Your task to perform on an android device: check the backup settings in the google photos Image 0: 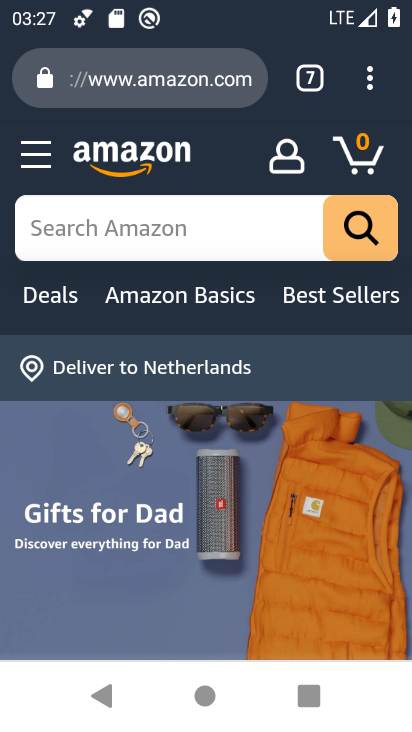
Step 0: press home button
Your task to perform on an android device: check the backup settings in the google photos Image 1: 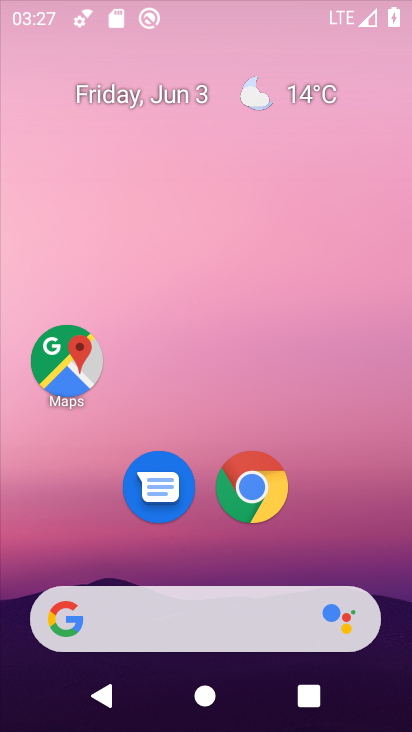
Step 1: drag from (334, 511) to (222, 0)
Your task to perform on an android device: check the backup settings in the google photos Image 2: 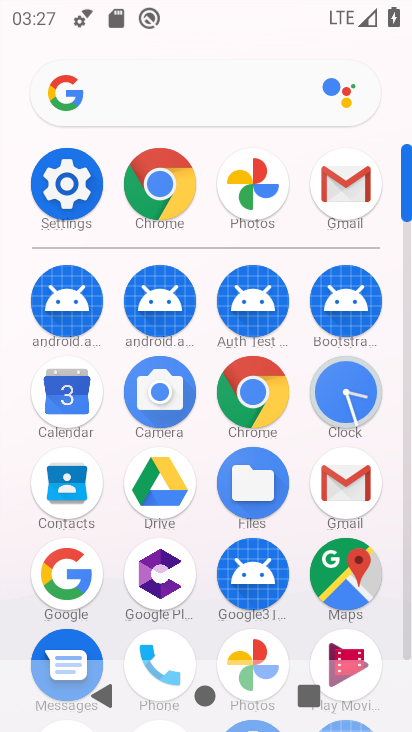
Step 2: click (259, 650)
Your task to perform on an android device: check the backup settings in the google photos Image 3: 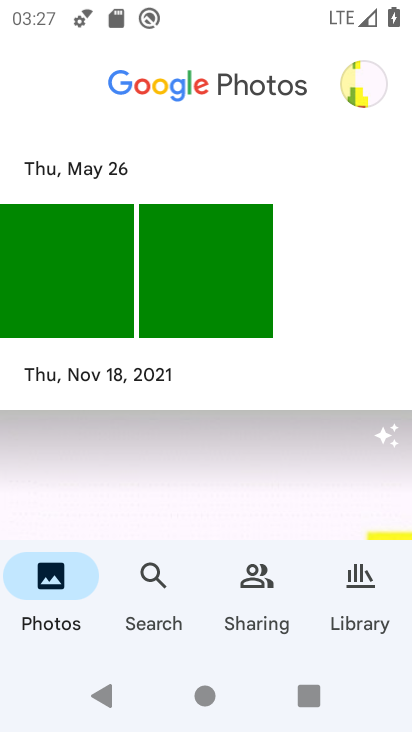
Step 3: click (350, 79)
Your task to perform on an android device: check the backup settings in the google photos Image 4: 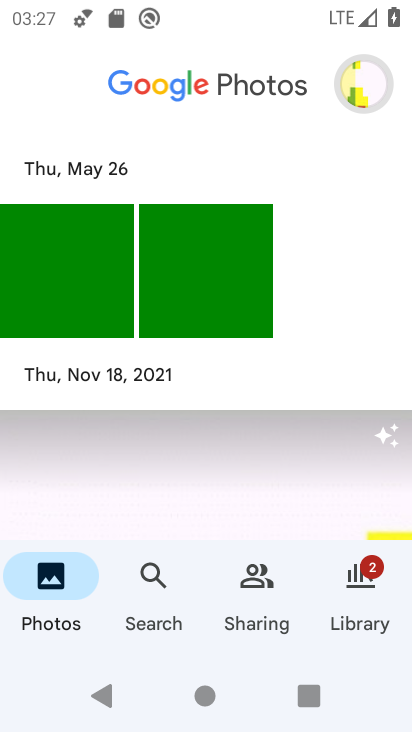
Step 4: click (372, 78)
Your task to perform on an android device: check the backup settings in the google photos Image 5: 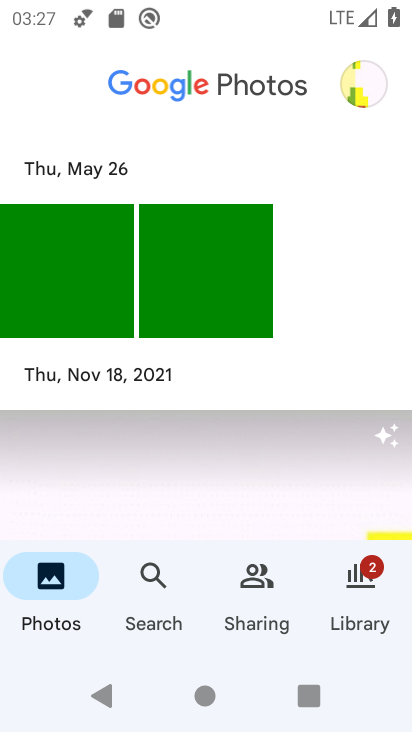
Step 5: click (357, 78)
Your task to perform on an android device: check the backup settings in the google photos Image 6: 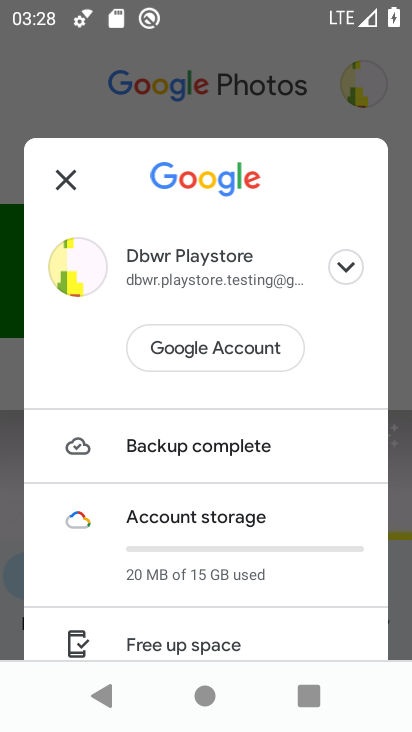
Step 6: drag from (268, 554) to (268, 56)
Your task to perform on an android device: check the backup settings in the google photos Image 7: 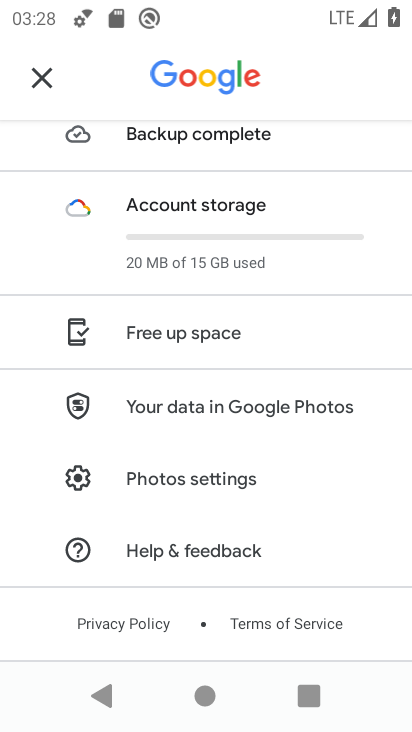
Step 7: click (223, 470)
Your task to perform on an android device: check the backup settings in the google photos Image 8: 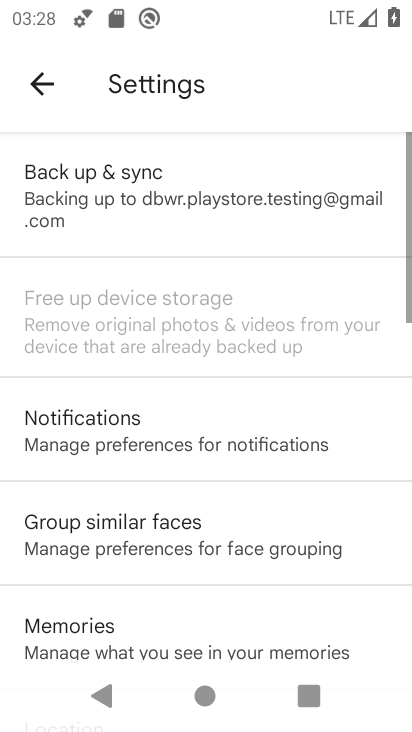
Step 8: click (162, 183)
Your task to perform on an android device: check the backup settings in the google photos Image 9: 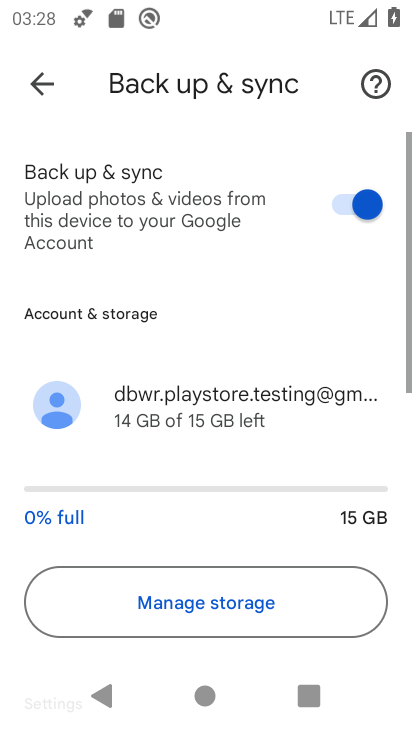
Step 9: task complete